Your task to perform on an android device: Is it going to rain tomorrow? Image 0: 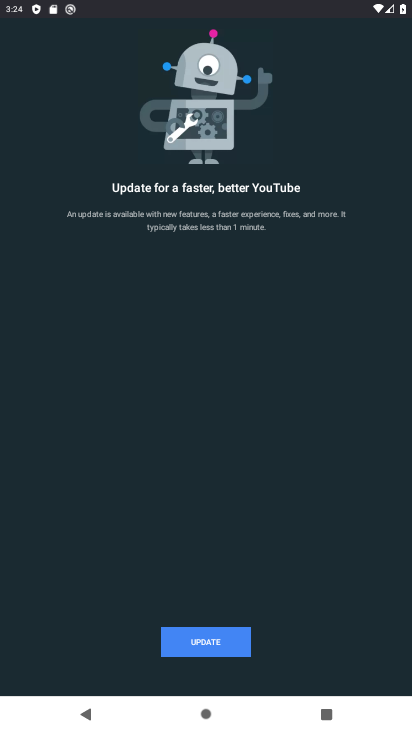
Step 0: press home button
Your task to perform on an android device: Is it going to rain tomorrow? Image 1: 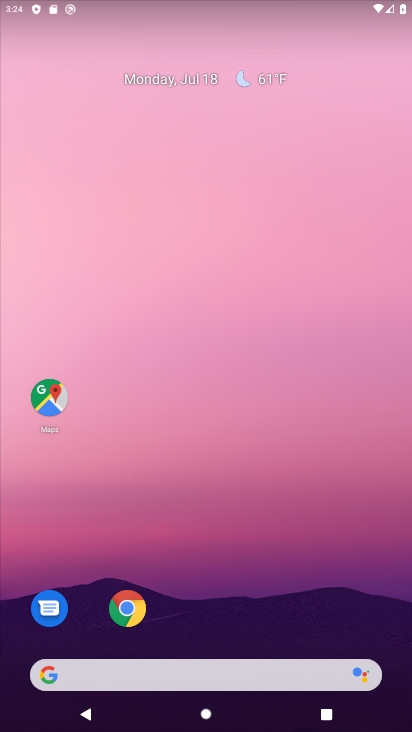
Step 1: drag from (317, 581) to (218, 44)
Your task to perform on an android device: Is it going to rain tomorrow? Image 2: 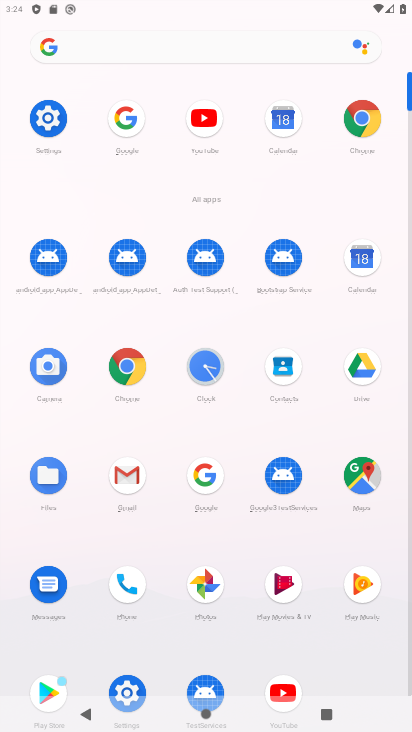
Step 2: click (361, 118)
Your task to perform on an android device: Is it going to rain tomorrow? Image 3: 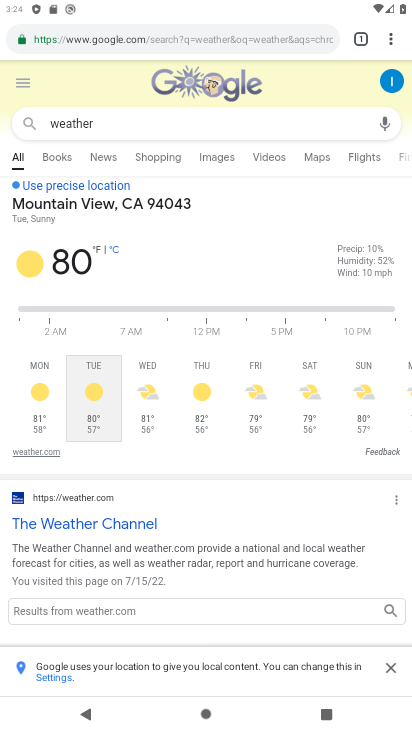
Step 3: task complete